Your task to perform on an android device: Open Chrome and go to settings Image 0: 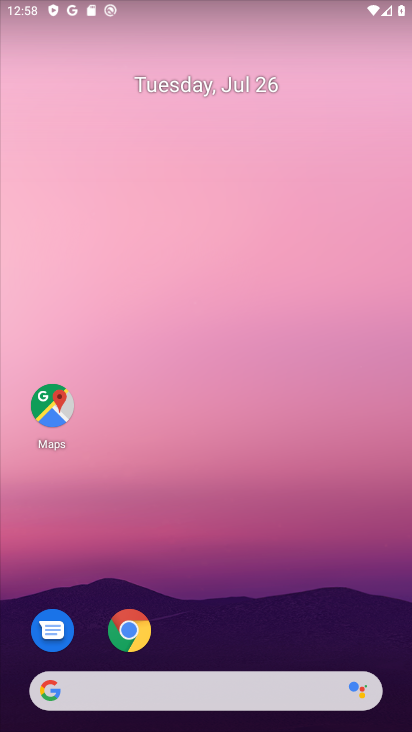
Step 0: drag from (251, 493) to (296, 57)
Your task to perform on an android device: Open Chrome and go to settings Image 1: 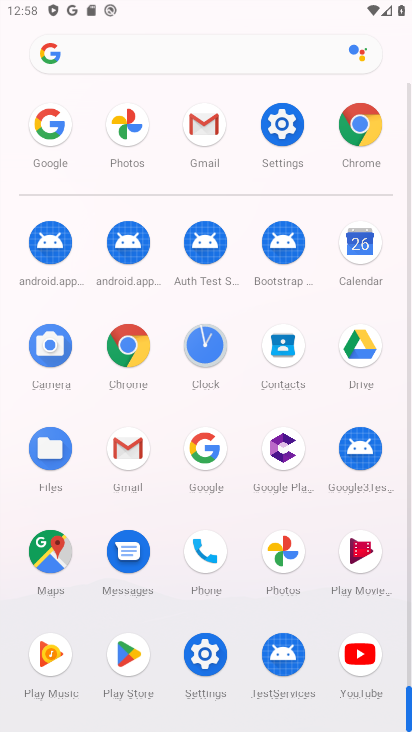
Step 1: click (362, 136)
Your task to perform on an android device: Open Chrome and go to settings Image 2: 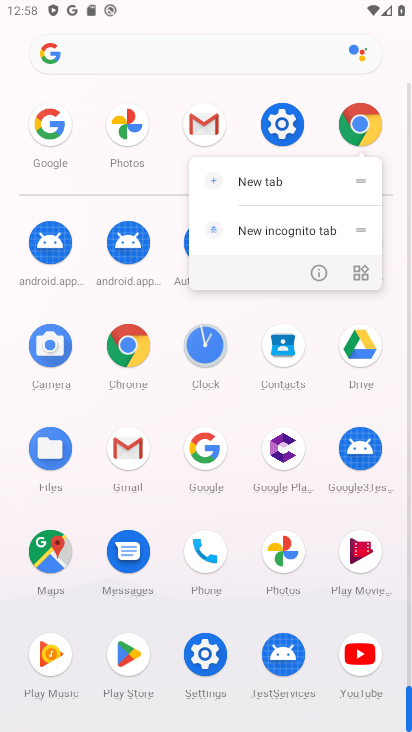
Step 2: click (362, 135)
Your task to perform on an android device: Open Chrome and go to settings Image 3: 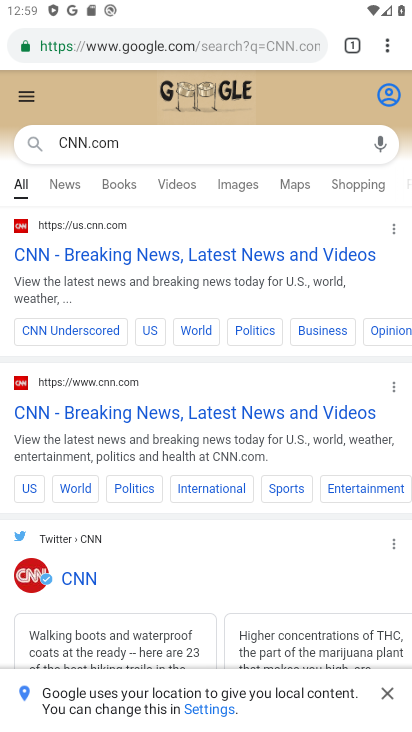
Step 3: task complete